Your task to perform on an android device: When is my next meeting? Image 0: 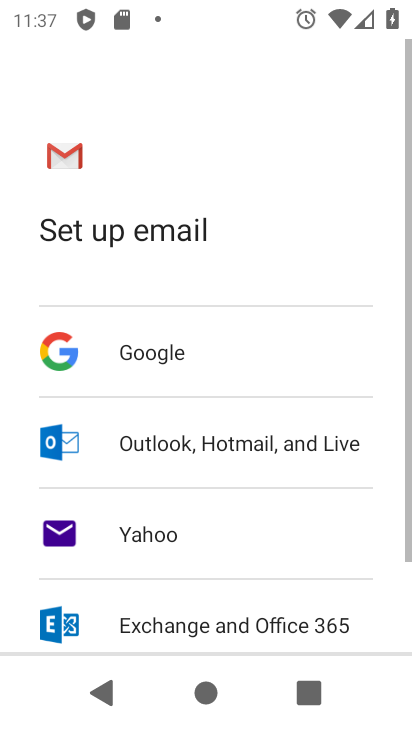
Step 0: press home button
Your task to perform on an android device: When is my next meeting? Image 1: 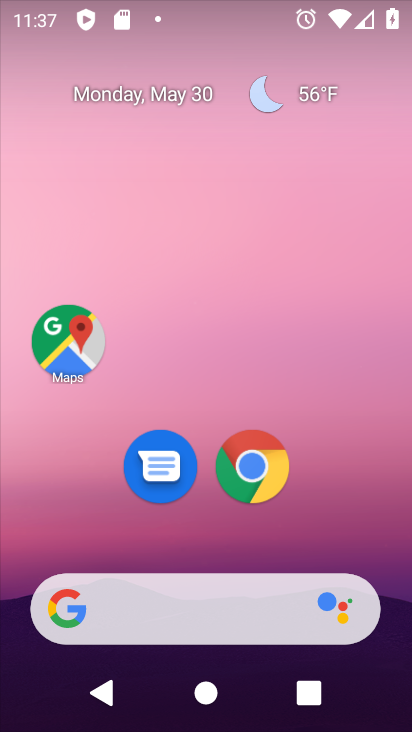
Step 1: drag from (193, 597) to (181, 102)
Your task to perform on an android device: When is my next meeting? Image 2: 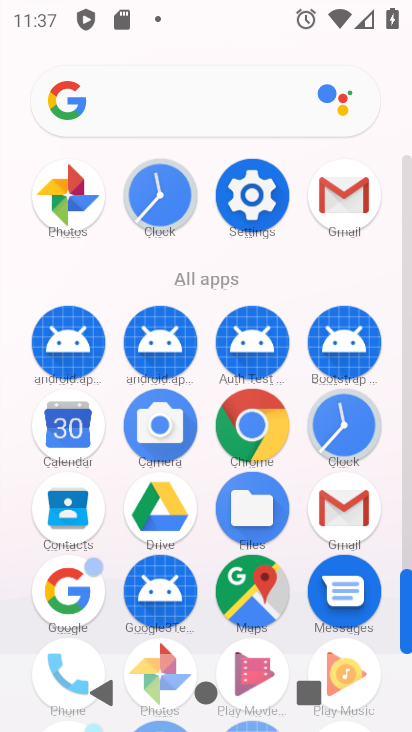
Step 2: click (68, 417)
Your task to perform on an android device: When is my next meeting? Image 3: 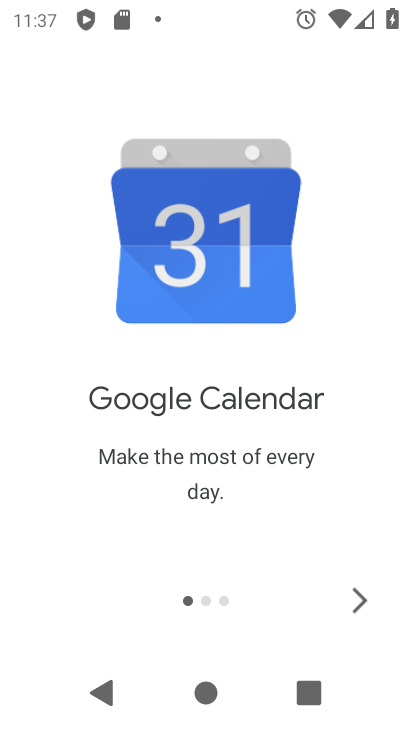
Step 3: click (355, 597)
Your task to perform on an android device: When is my next meeting? Image 4: 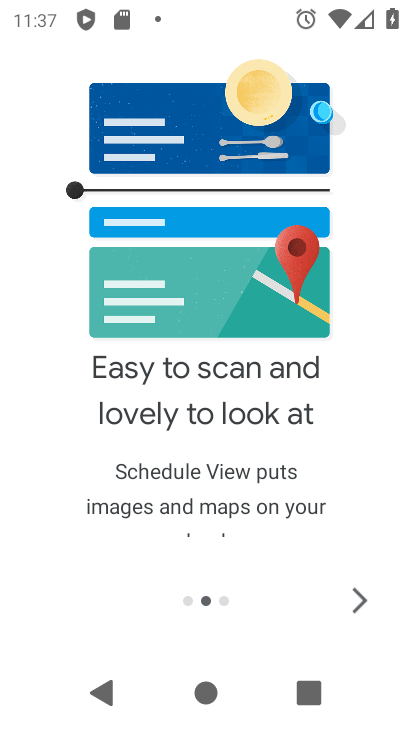
Step 4: click (355, 597)
Your task to perform on an android device: When is my next meeting? Image 5: 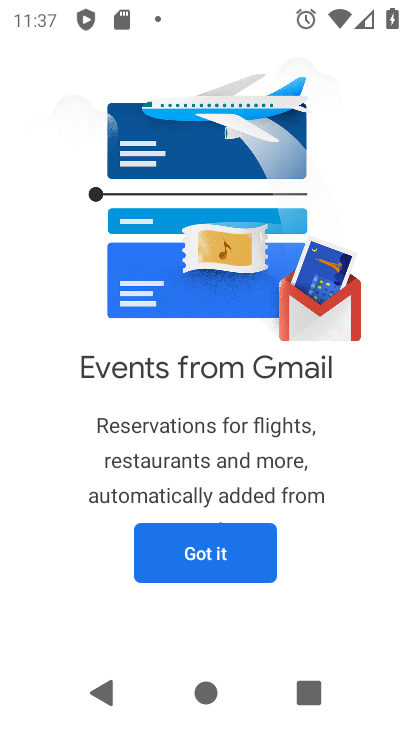
Step 5: click (223, 564)
Your task to perform on an android device: When is my next meeting? Image 6: 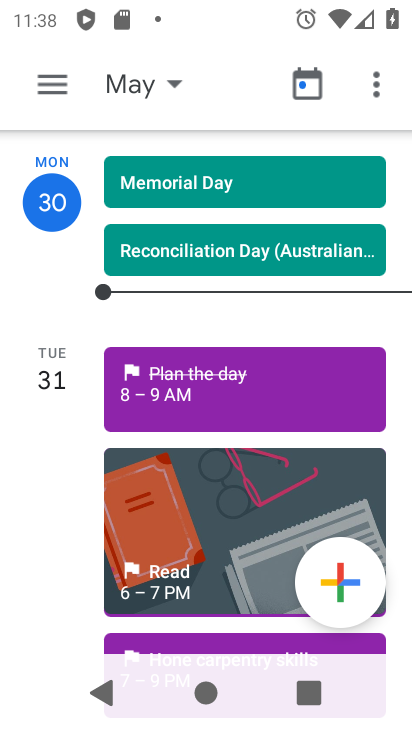
Step 6: task complete